Your task to perform on an android device: check data usage Image 0: 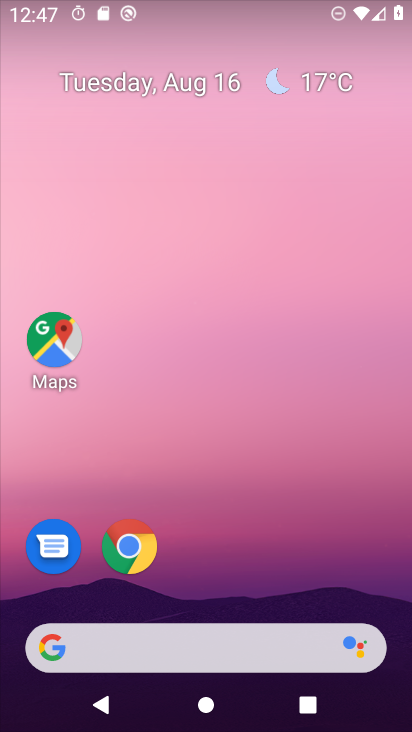
Step 0: drag from (226, 608) to (210, 143)
Your task to perform on an android device: check data usage Image 1: 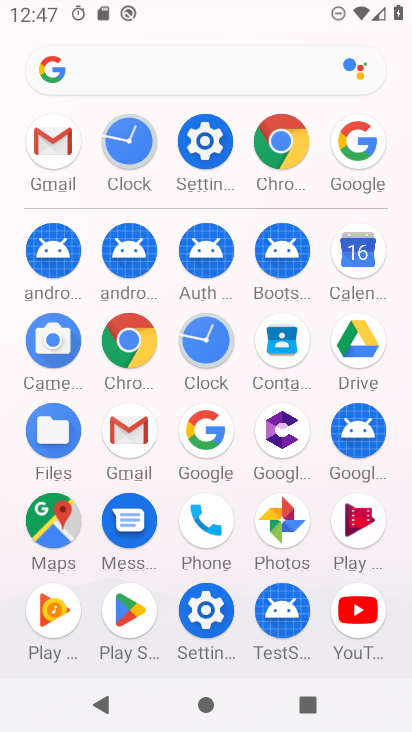
Step 1: click (211, 611)
Your task to perform on an android device: check data usage Image 2: 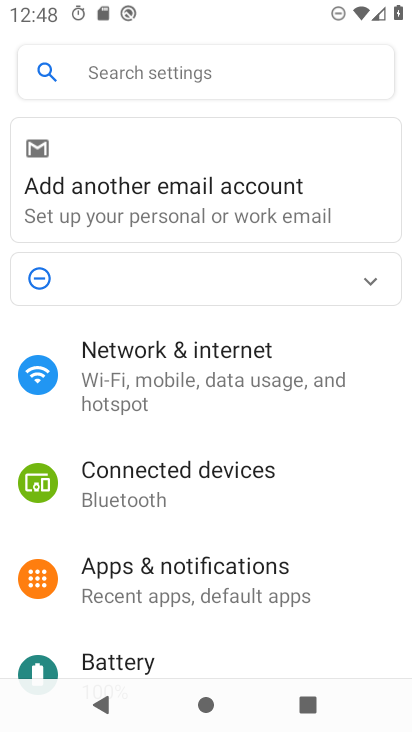
Step 2: click (124, 376)
Your task to perform on an android device: check data usage Image 3: 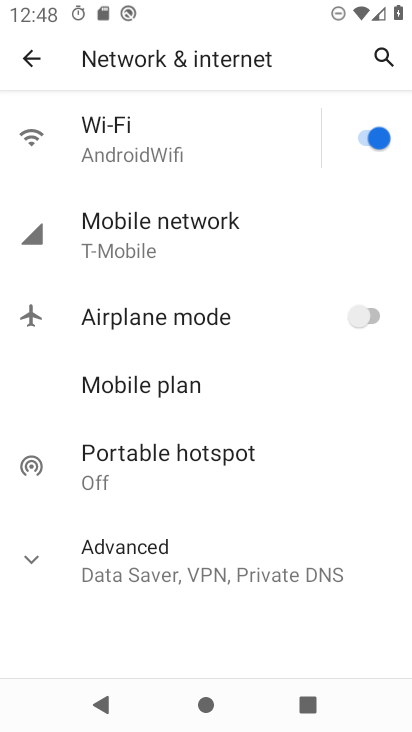
Step 3: drag from (145, 229) to (138, 271)
Your task to perform on an android device: check data usage Image 4: 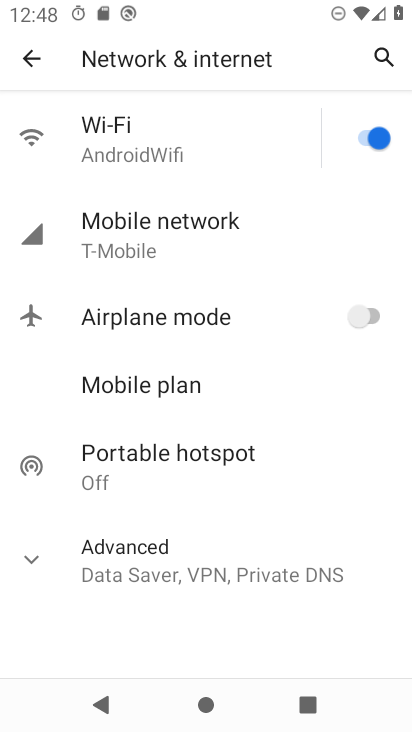
Step 4: click (107, 232)
Your task to perform on an android device: check data usage Image 5: 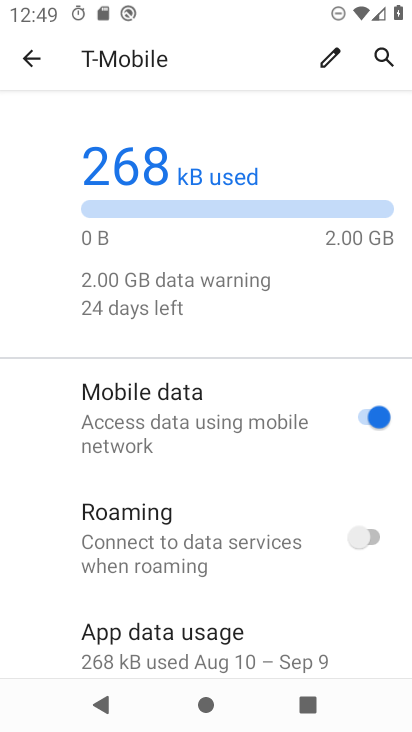
Step 5: drag from (166, 619) to (164, 451)
Your task to perform on an android device: check data usage Image 6: 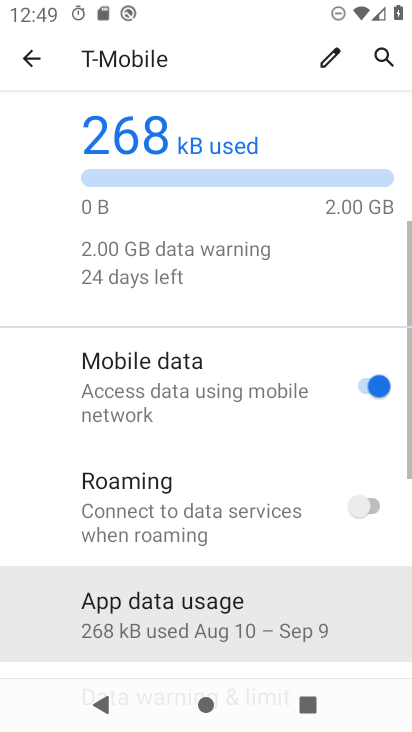
Step 6: drag from (163, 371) to (161, 277)
Your task to perform on an android device: check data usage Image 7: 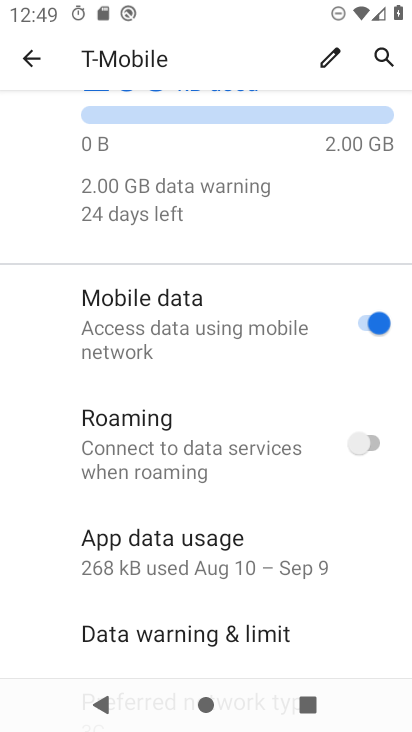
Step 7: click (150, 557)
Your task to perform on an android device: check data usage Image 8: 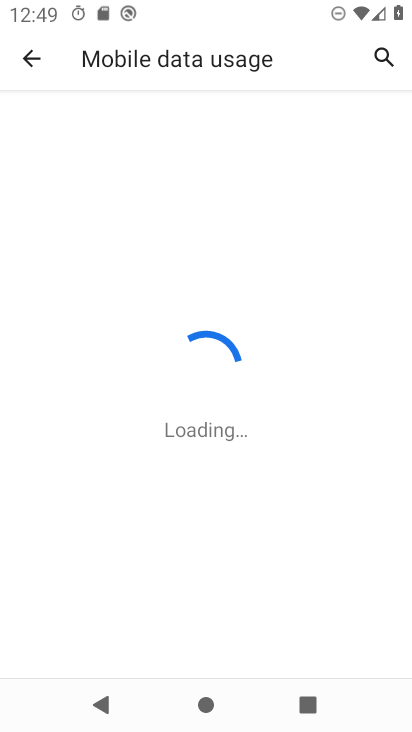
Step 8: task complete